Your task to perform on an android device: Clear the cart on walmart.com. Search for "bose soundsport free" on walmart.com, select the first entry, add it to the cart, then select checkout. Image 0: 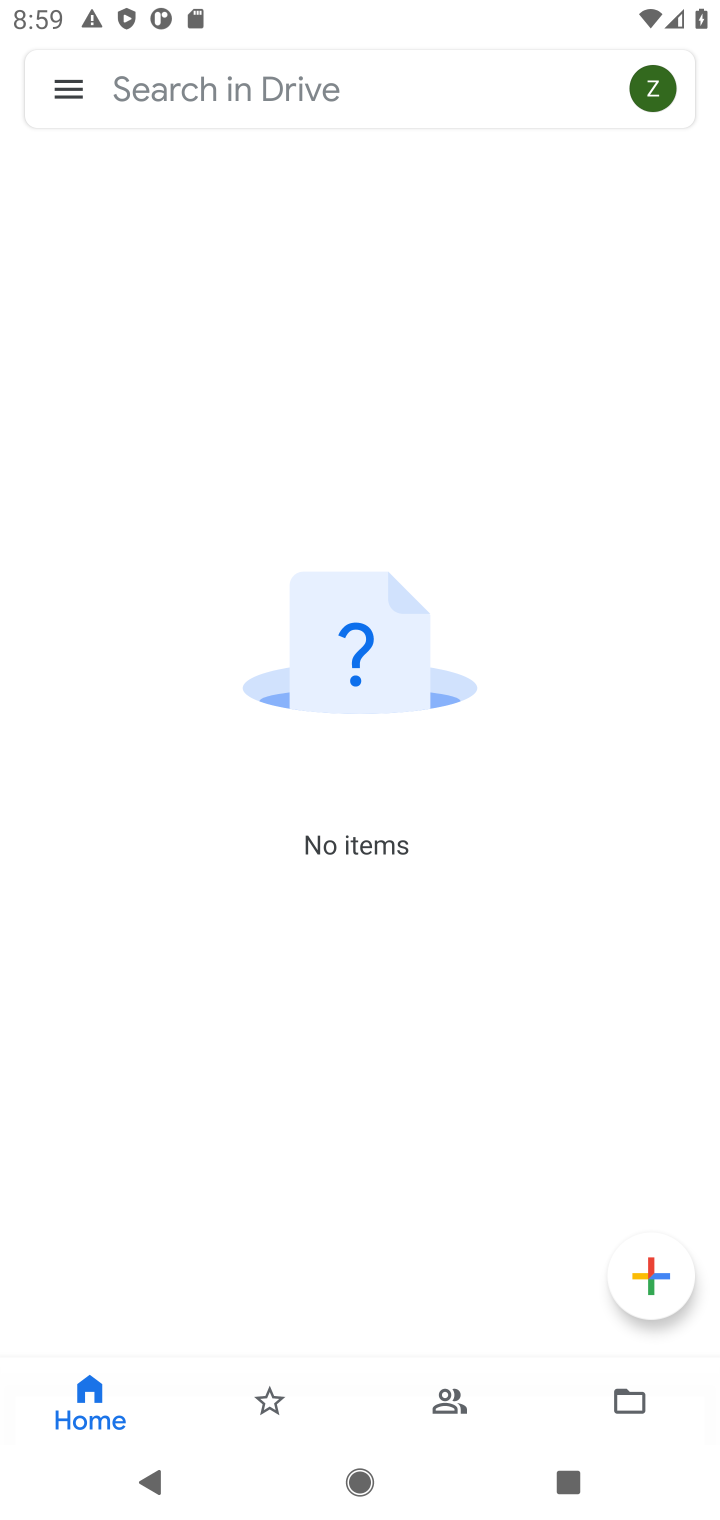
Step 0: press home button
Your task to perform on an android device: Clear the cart on walmart.com. Search for "bose soundsport free" on walmart.com, select the first entry, add it to the cart, then select checkout. Image 1: 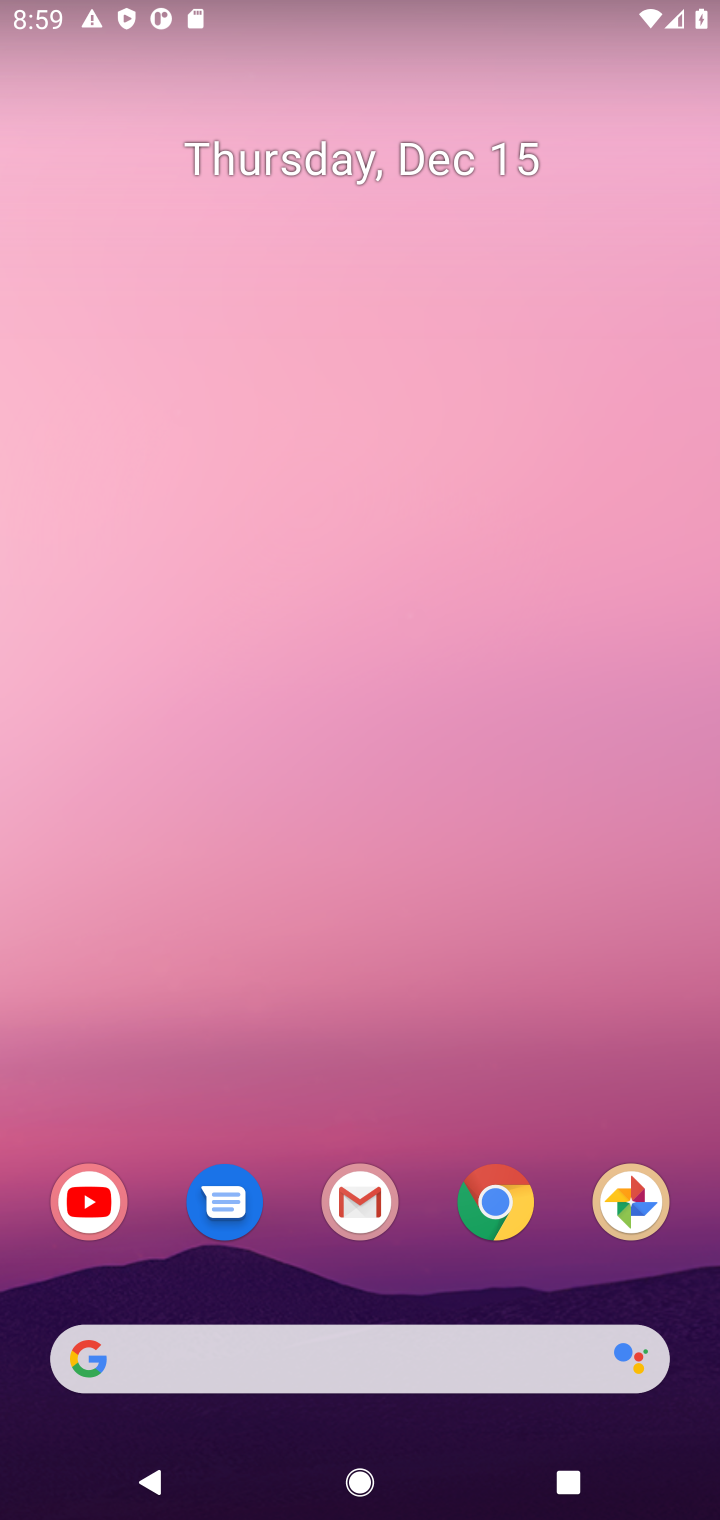
Step 1: click (505, 1209)
Your task to perform on an android device: Clear the cart on walmart.com. Search for "bose soundsport free" on walmart.com, select the first entry, add it to the cart, then select checkout. Image 2: 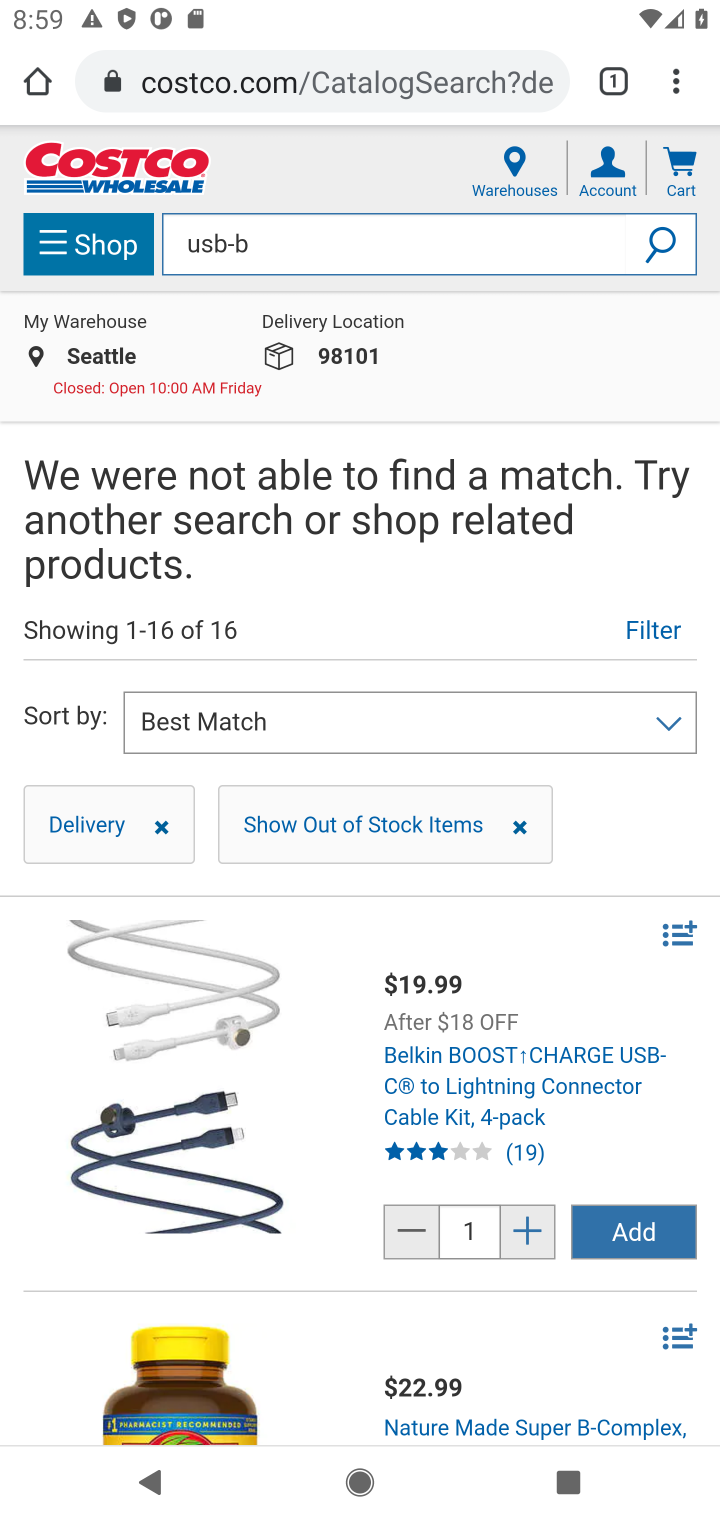
Step 2: click (311, 75)
Your task to perform on an android device: Clear the cart on walmart.com. Search for "bose soundsport free" on walmart.com, select the first entry, add it to the cart, then select checkout. Image 3: 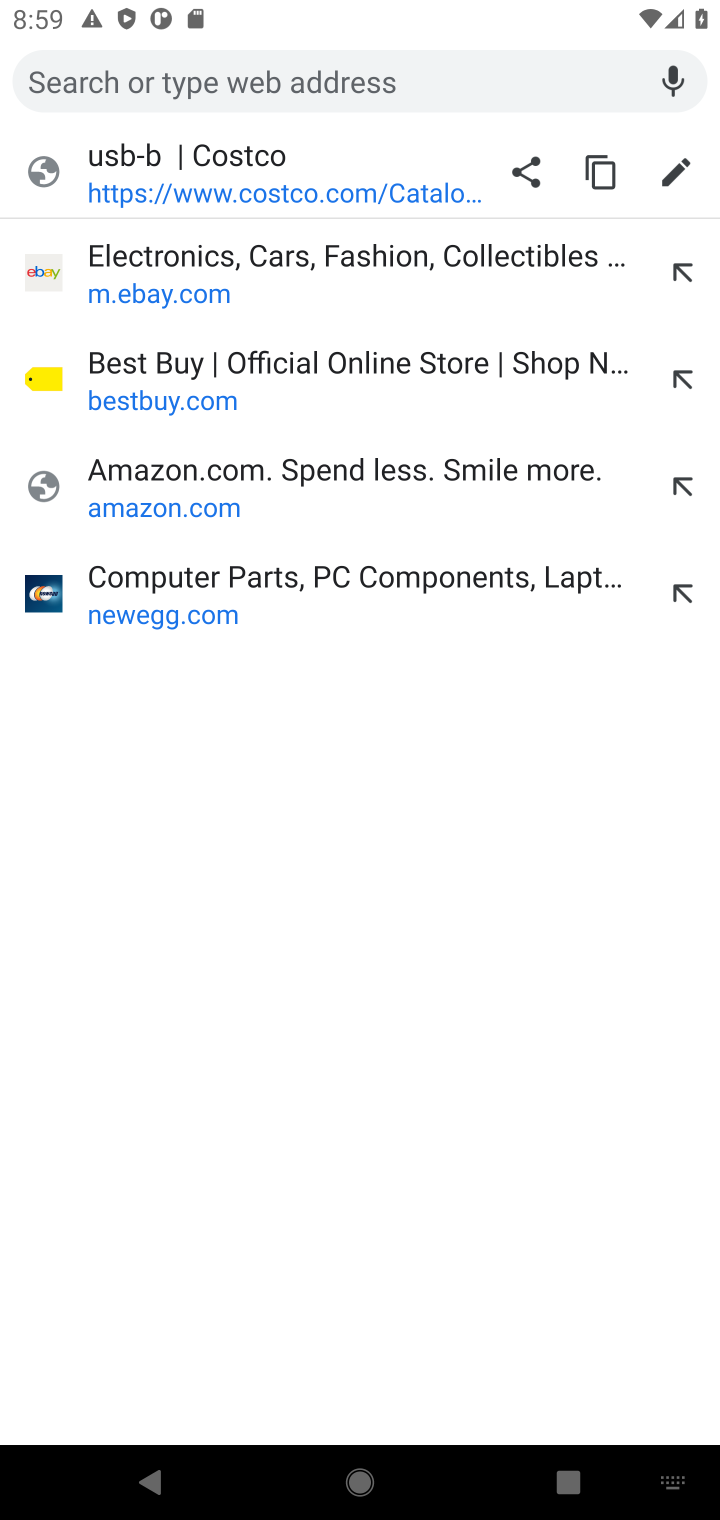
Step 3: type "walmart.com"
Your task to perform on an android device: Clear the cart on walmart.com. Search for "bose soundsport free" on walmart.com, select the first entry, add it to the cart, then select checkout. Image 4: 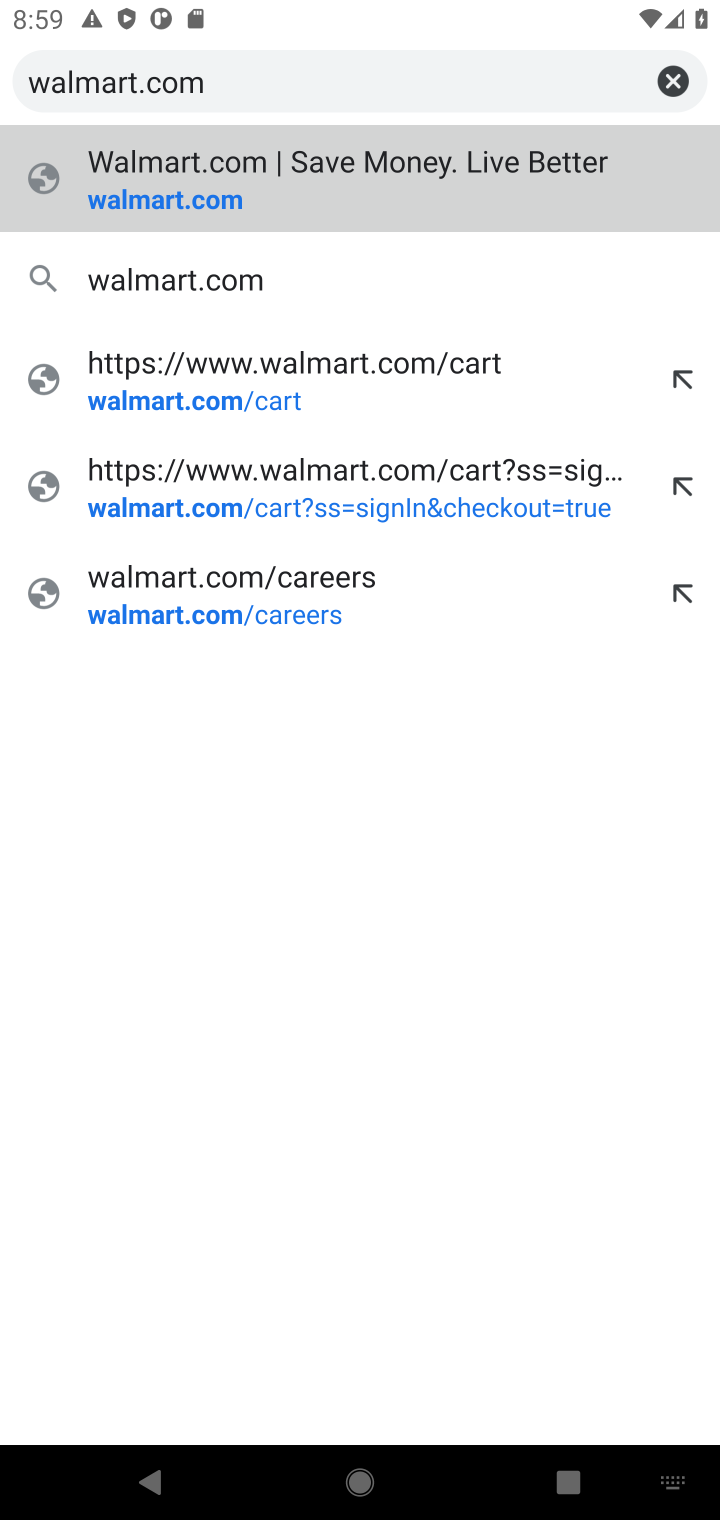
Step 4: click (190, 200)
Your task to perform on an android device: Clear the cart on walmart.com. Search for "bose soundsport free" on walmart.com, select the first entry, add it to the cart, then select checkout. Image 5: 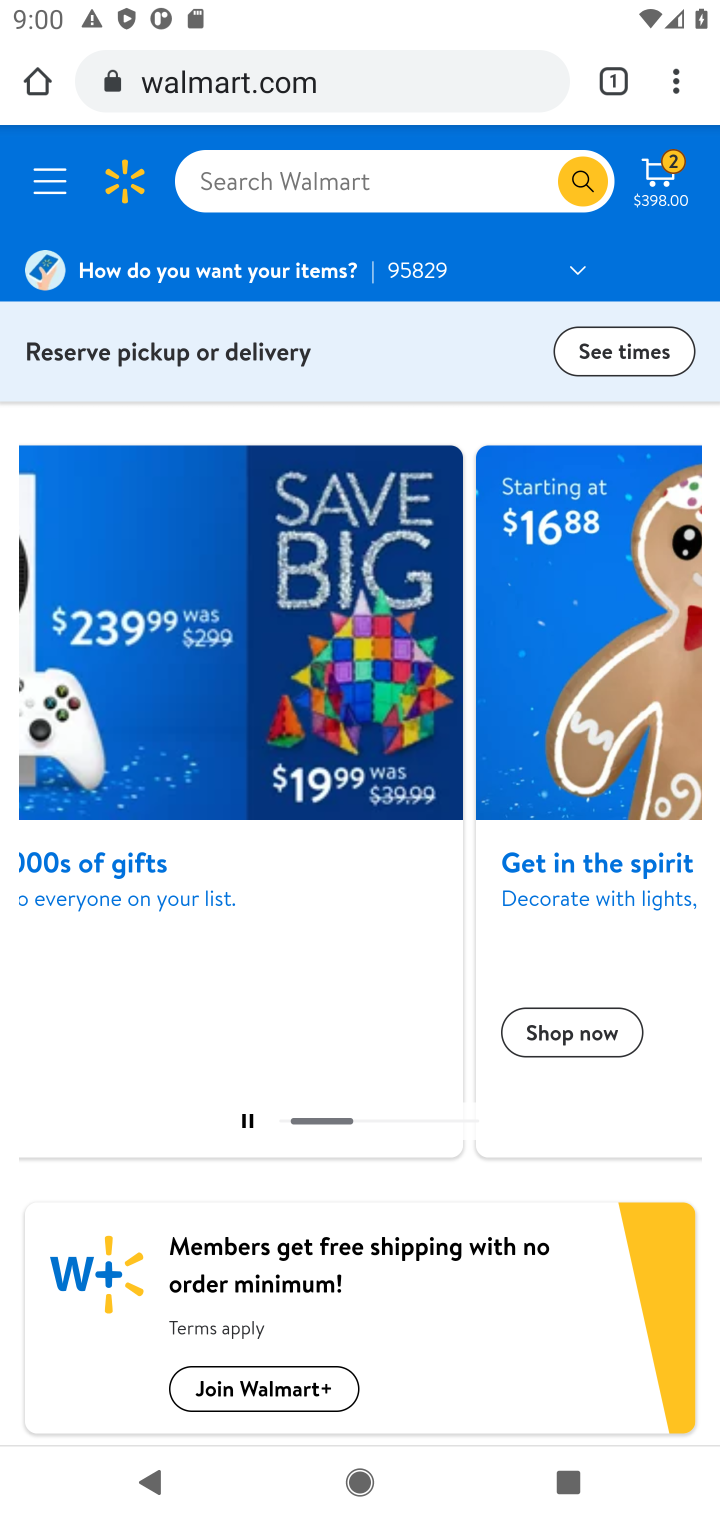
Step 5: click (669, 183)
Your task to perform on an android device: Clear the cart on walmart.com. Search for "bose soundsport free" on walmart.com, select the first entry, add it to the cart, then select checkout. Image 6: 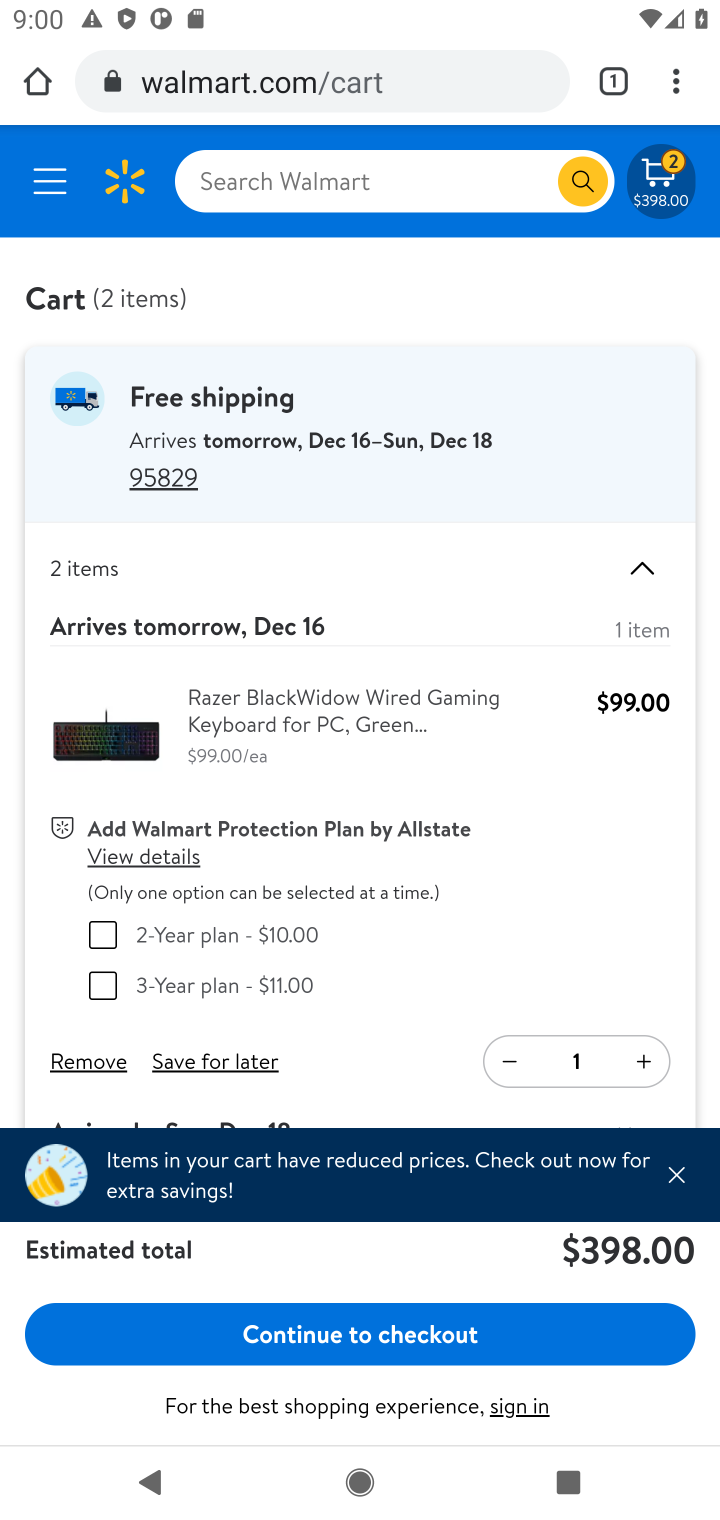
Step 6: click (80, 1067)
Your task to perform on an android device: Clear the cart on walmart.com. Search for "bose soundsport free" on walmart.com, select the first entry, add it to the cart, then select checkout. Image 7: 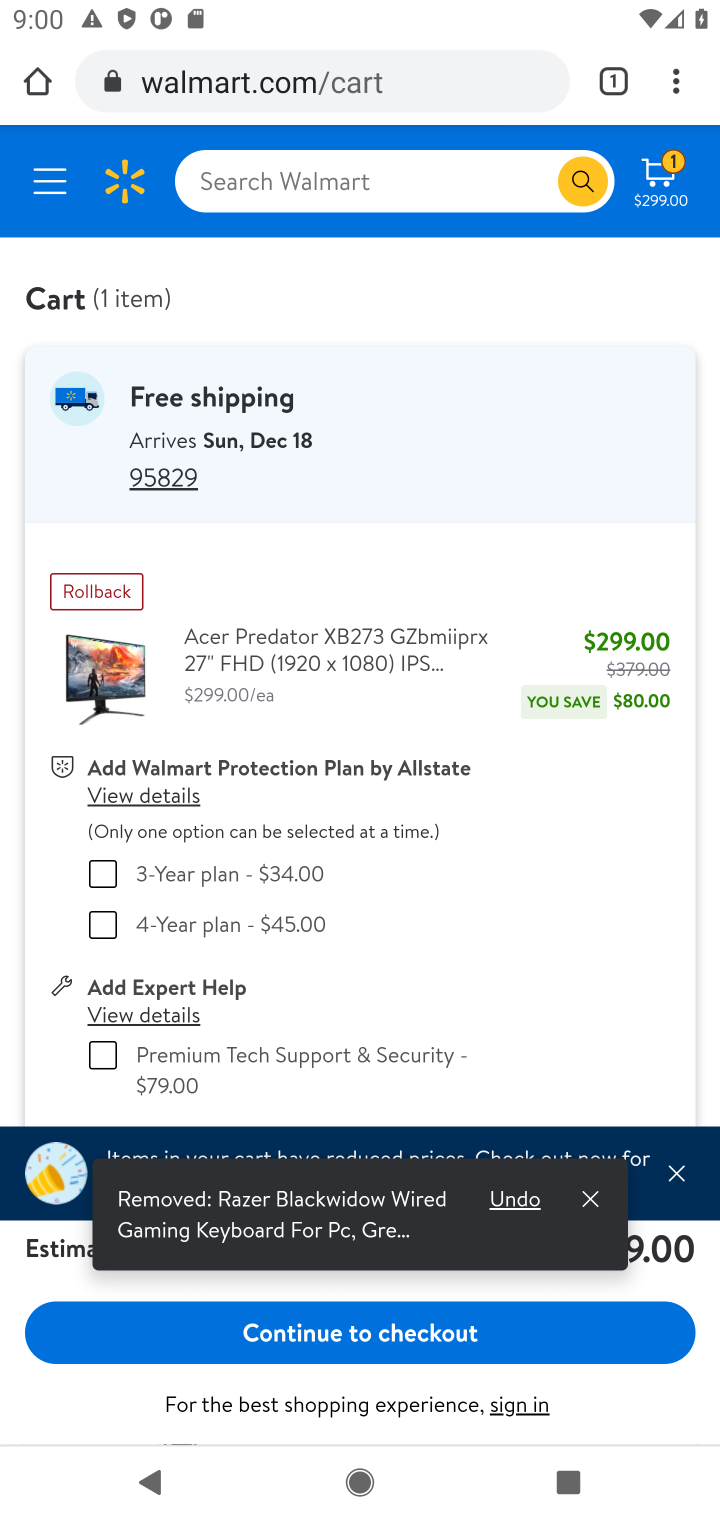
Step 7: drag from (411, 973) to (435, 740)
Your task to perform on an android device: Clear the cart on walmart.com. Search for "bose soundsport free" on walmart.com, select the first entry, add it to the cart, then select checkout. Image 8: 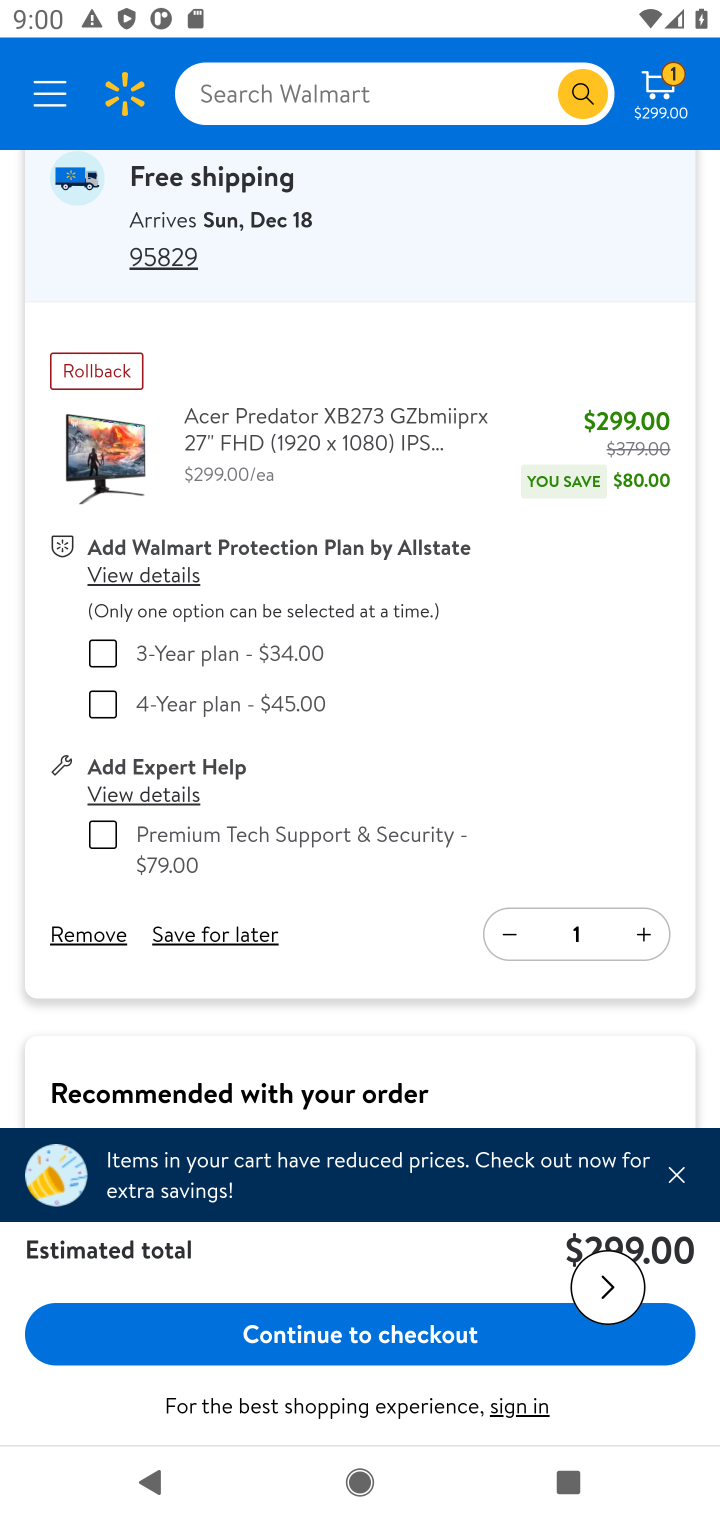
Step 8: click (66, 939)
Your task to perform on an android device: Clear the cart on walmart.com. Search for "bose soundsport free" on walmart.com, select the first entry, add it to the cart, then select checkout. Image 9: 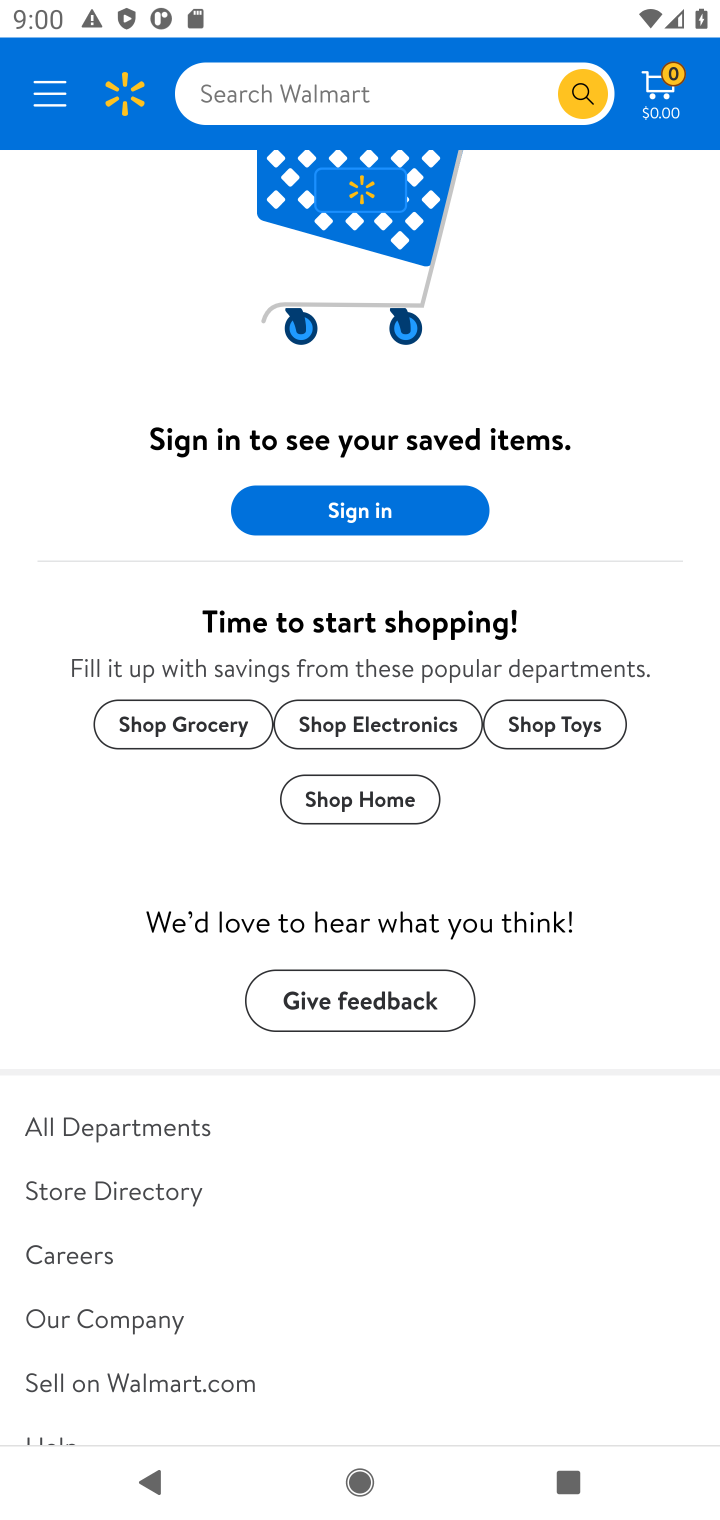
Step 9: drag from (397, 639) to (376, 1103)
Your task to perform on an android device: Clear the cart on walmart.com. Search for "bose soundsport free" on walmart.com, select the first entry, add it to the cart, then select checkout. Image 10: 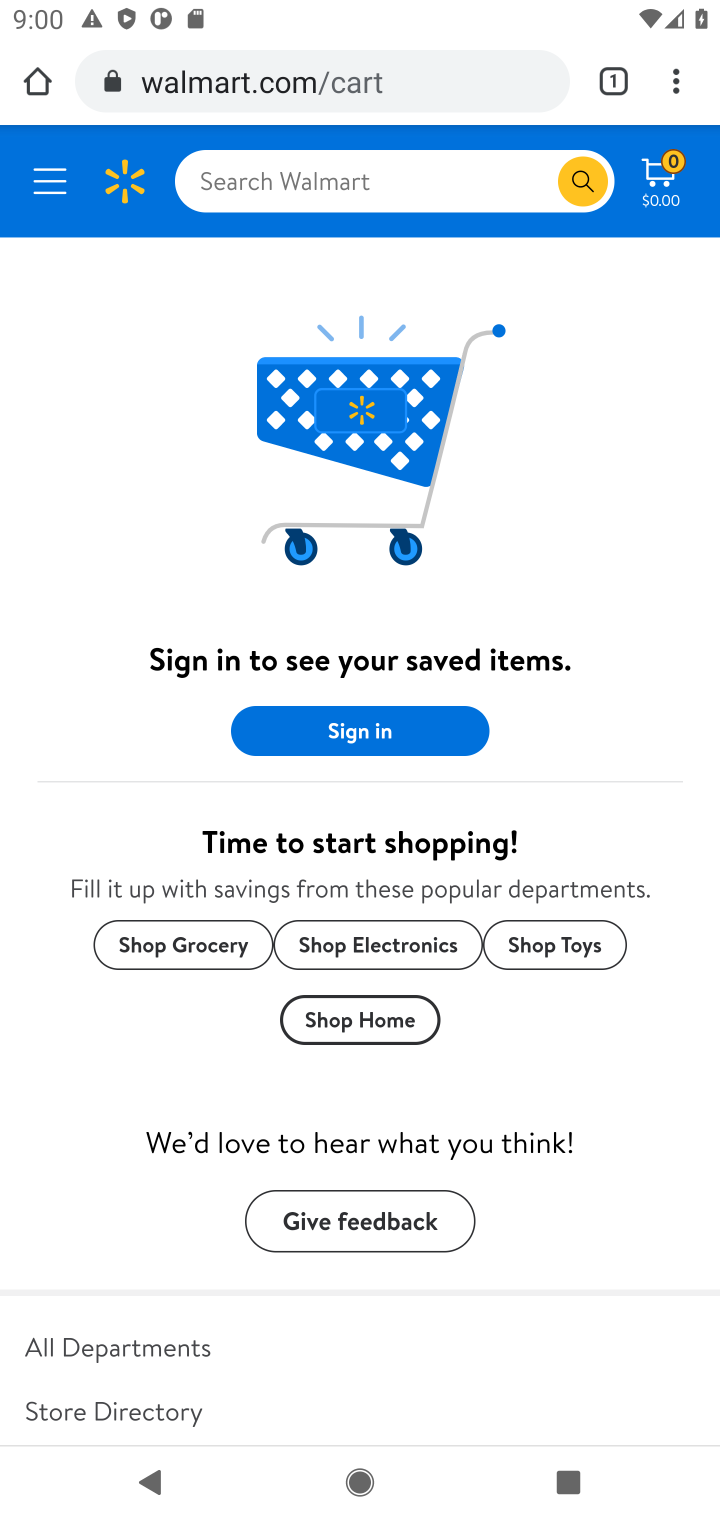
Step 10: click (272, 182)
Your task to perform on an android device: Clear the cart on walmart.com. Search for "bose soundsport free" on walmart.com, select the first entry, add it to the cart, then select checkout. Image 11: 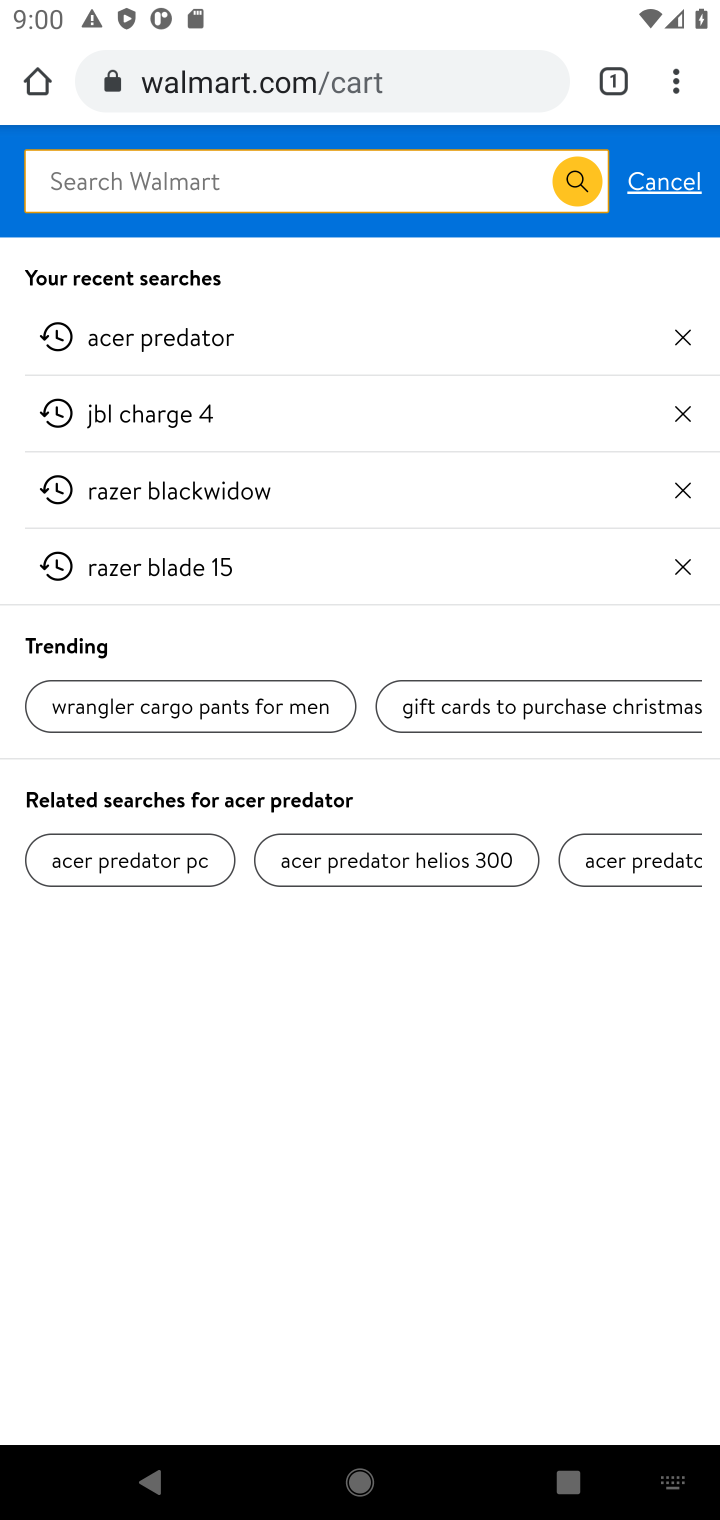
Step 11: type "bose soundsport free"
Your task to perform on an android device: Clear the cart on walmart.com. Search for "bose soundsport free" on walmart.com, select the first entry, add it to the cart, then select checkout. Image 12: 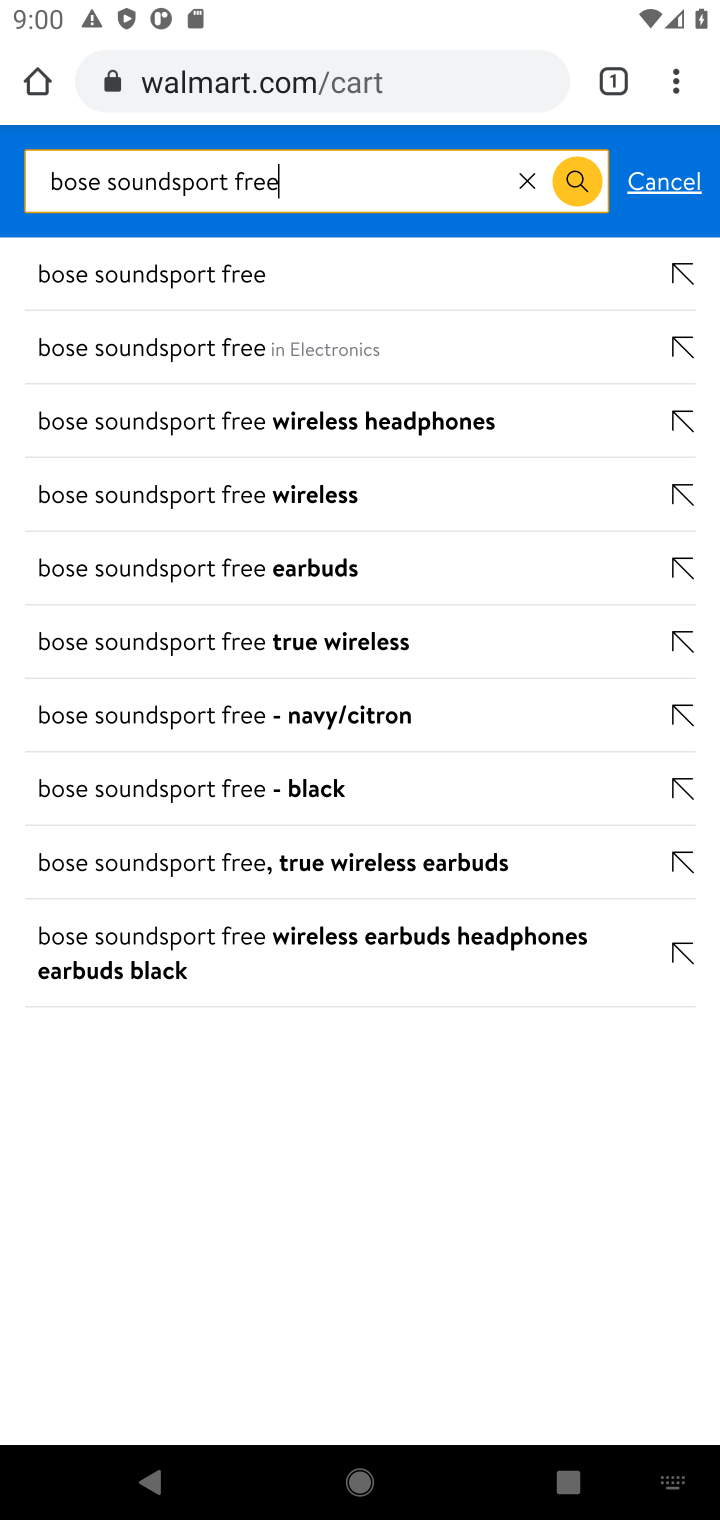
Step 12: click (190, 272)
Your task to perform on an android device: Clear the cart on walmart.com. Search for "bose soundsport free" on walmart.com, select the first entry, add it to the cart, then select checkout. Image 13: 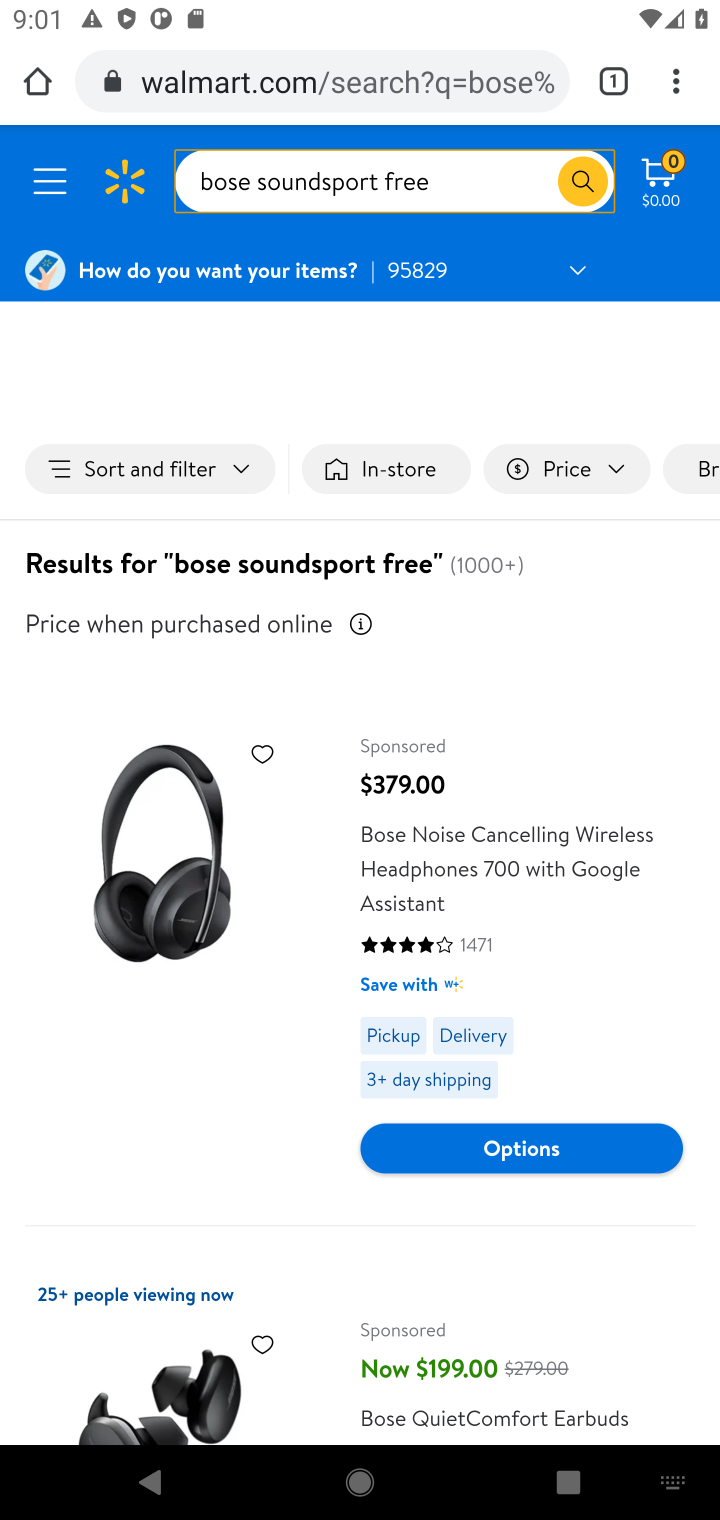
Step 13: task complete